Your task to perform on an android device: add a contact Image 0: 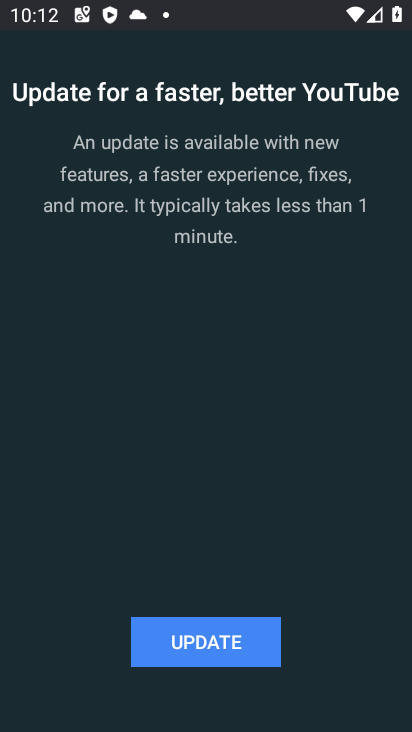
Step 0: press home button
Your task to perform on an android device: add a contact Image 1: 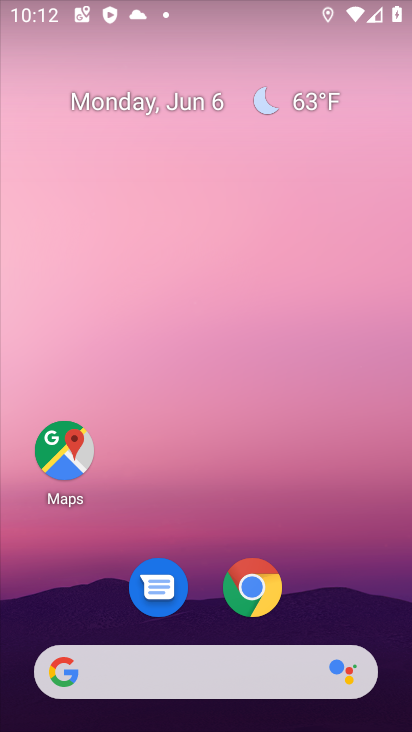
Step 1: drag from (226, 581) to (129, 220)
Your task to perform on an android device: add a contact Image 2: 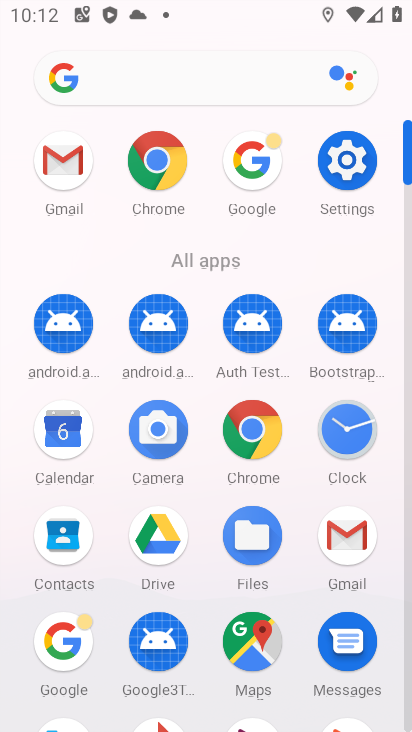
Step 2: click (69, 538)
Your task to perform on an android device: add a contact Image 3: 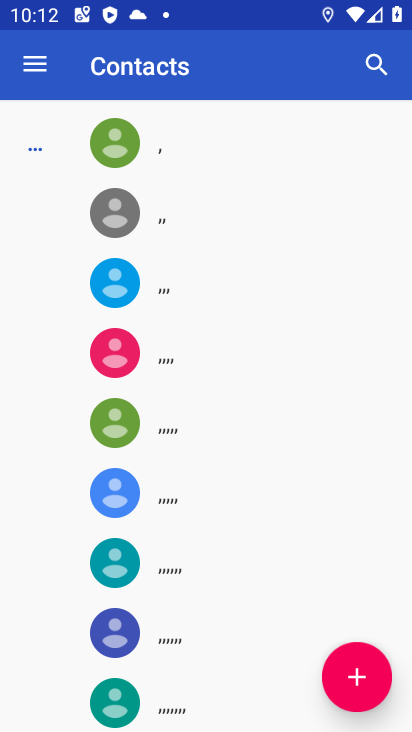
Step 3: click (349, 684)
Your task to perform on an android device: add a contact Image 4: 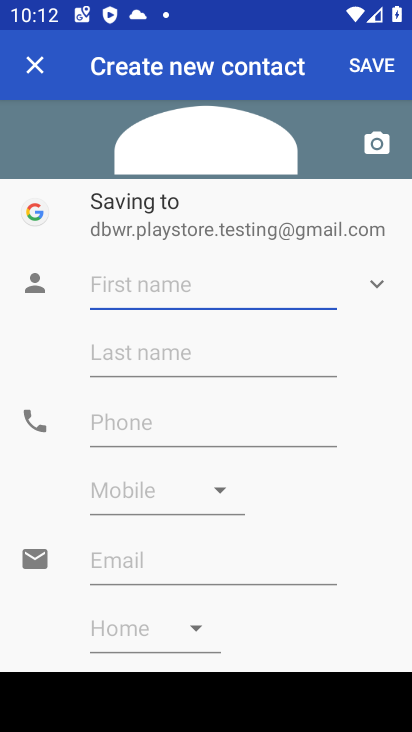
Step 4: type "piku"
Your task to perform on an android device: add a contact Image 5: 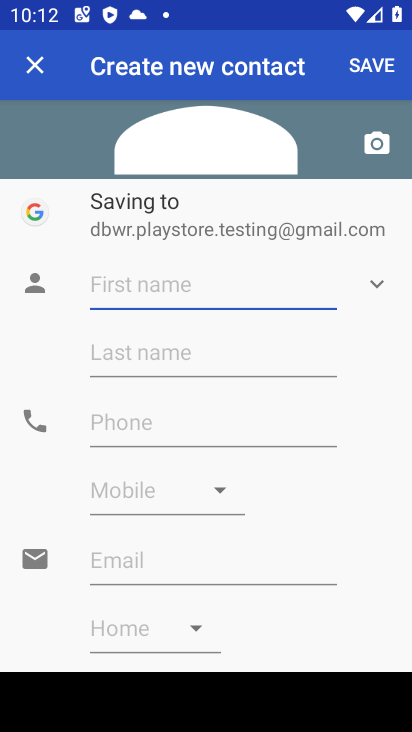
Step 5: click (151, 360)
Your task to perform on an android device: add a contact Image 6: 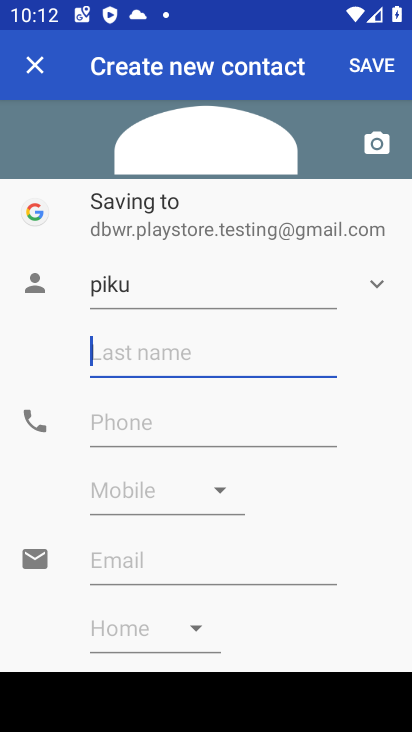
Step 6: type "jain"
Your task to perform on an android device: add a contact Image 7: 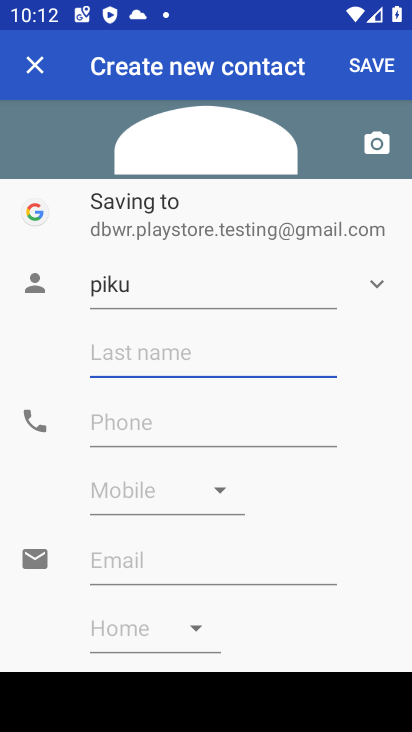
Step 7: click (157, 421)
Your task to perform on an android device: add a contact Image 8: 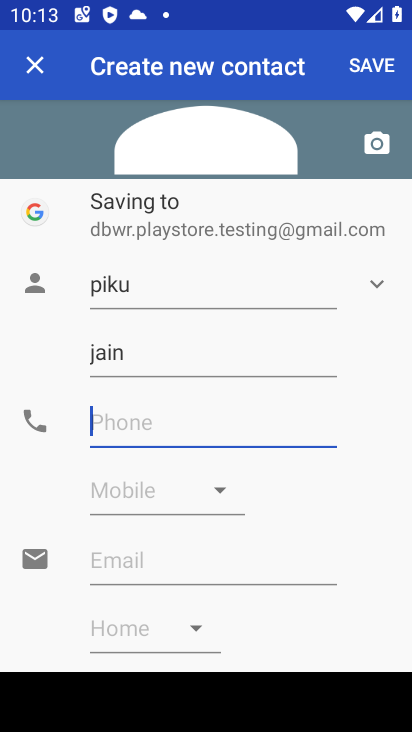
Step 8: type "7674767890"
Your task to perform on an android device: add a contact Image 9: 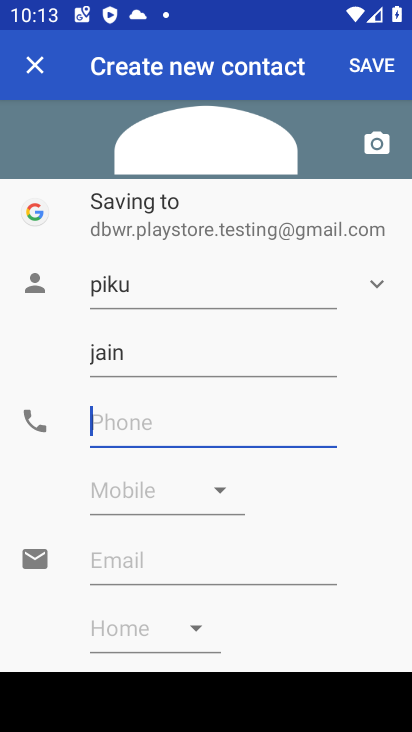
Step 9: click (177, 505)
Your task to perform on an android device: add a contact Image 10: 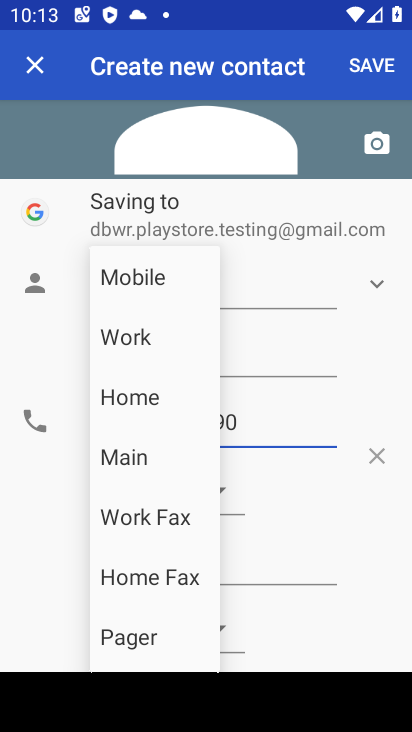
Step 10: click (128, 279)
Your task to perform on an android device: add a contact Image 11: 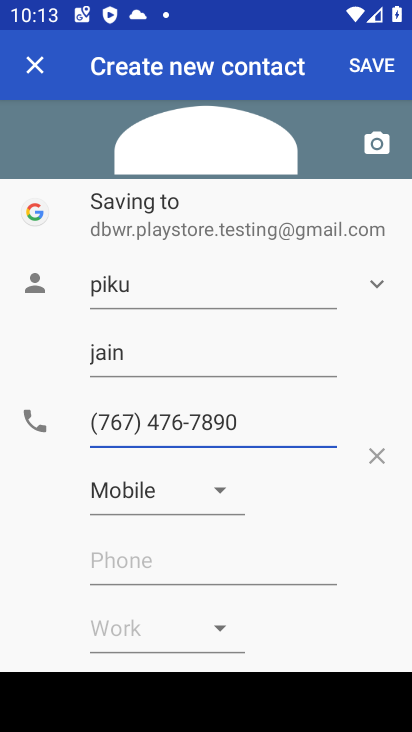
Step 11: click (389, 65)
Your task to perform on an android device: add a contact Image 12: 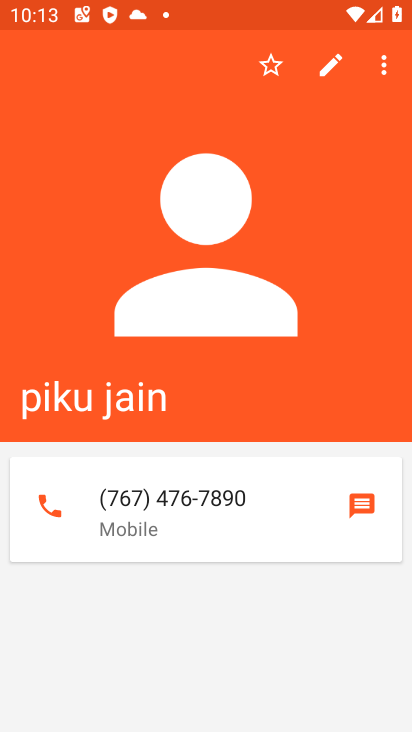
Step 12: task complete